Your task to perform on an android device: check data usage Image 0: 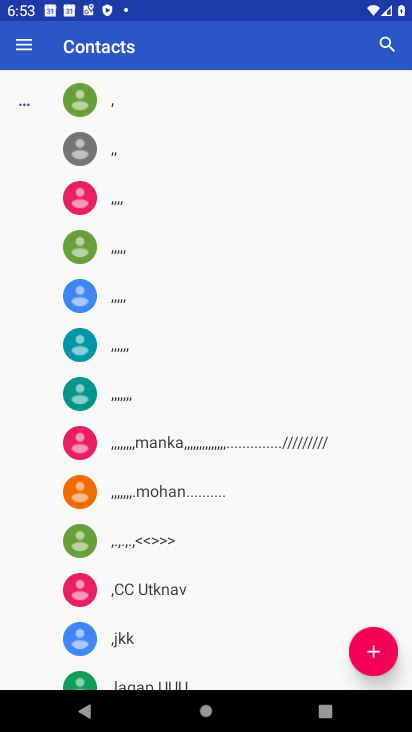
Step 0: press home button
Your task to perform on an android device: check data usage Image 1: 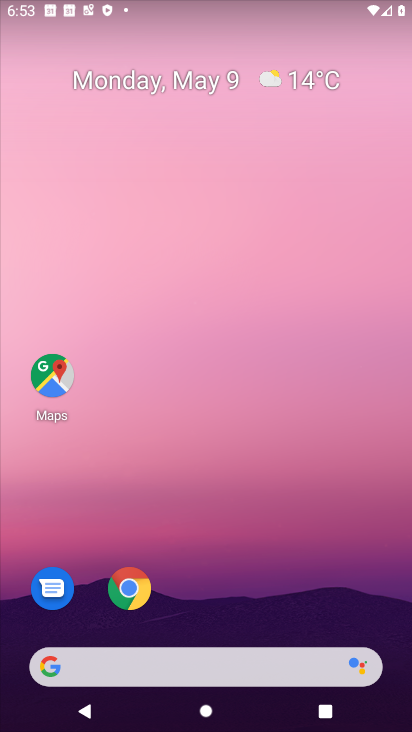
Step 1: drag from (333, 595) to (296, 61)
Your task to perform on an android device: check data usage Image 2: 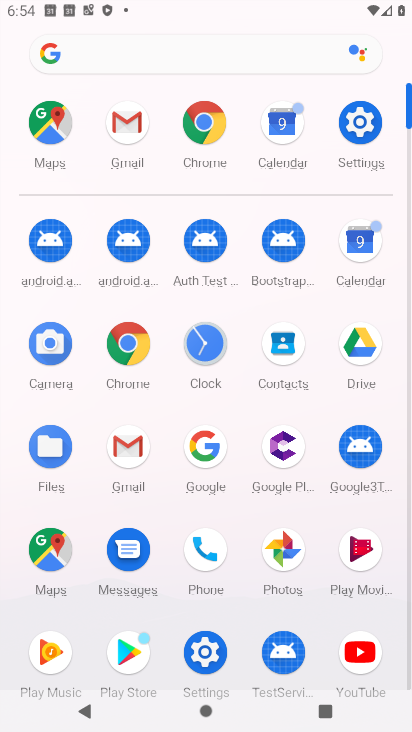
Step 2: click (205, 646)
Your task to perform on an android device: check data usage Image 3: 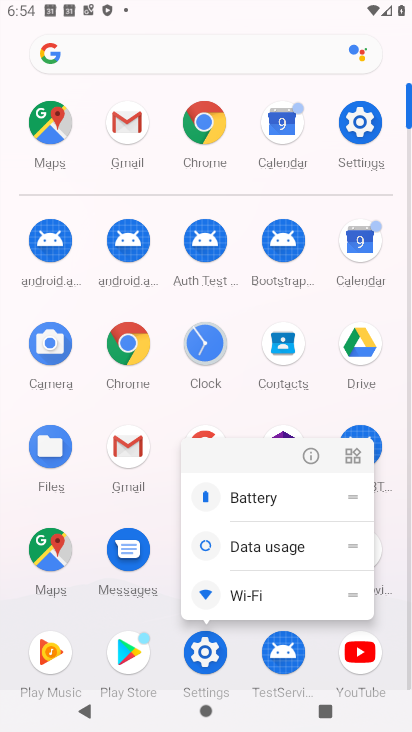
Step 3: click (205, 646)
Your task to perform on an android device: check data usage Image 4: 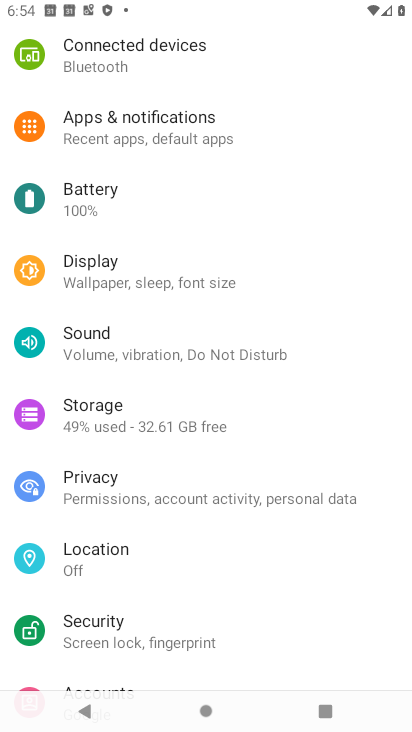
Step 4: drag from (169, 93) to (230, 656)
Your task to perform on an android device: check data usage Image 5: 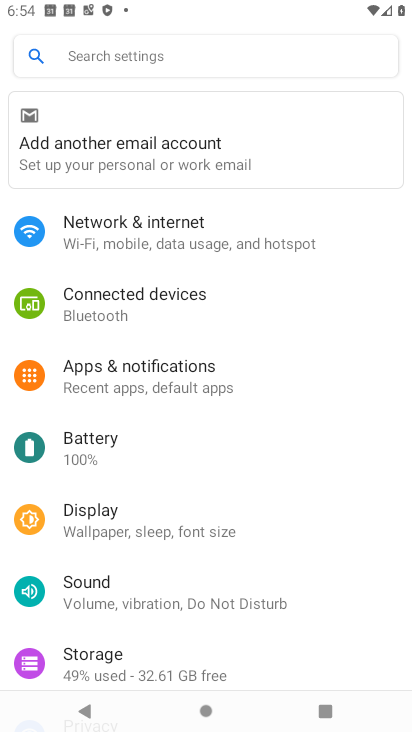
Step 5: click (212, 245)
Your task to perform on an android device: check data usage Image 6: 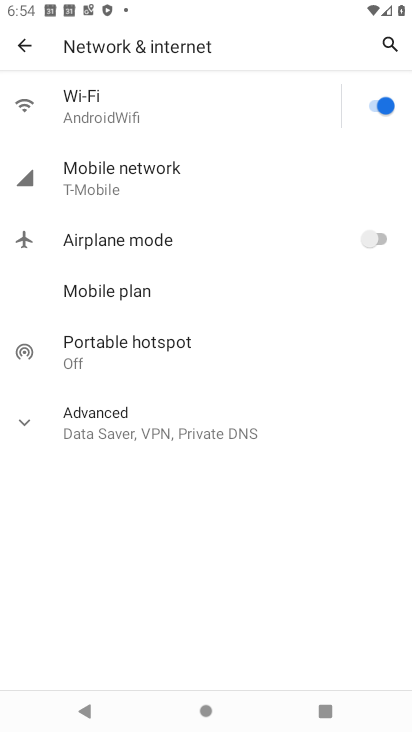
Step 6: click (153, 180)
Your task to perform on an android device: check data usage Image 7: 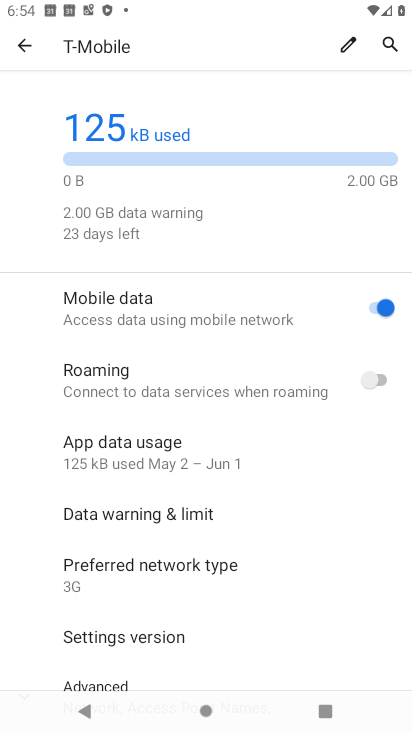
Step 7: click (172, 455)
Your task to perform on an android device: check data usage Image 8: 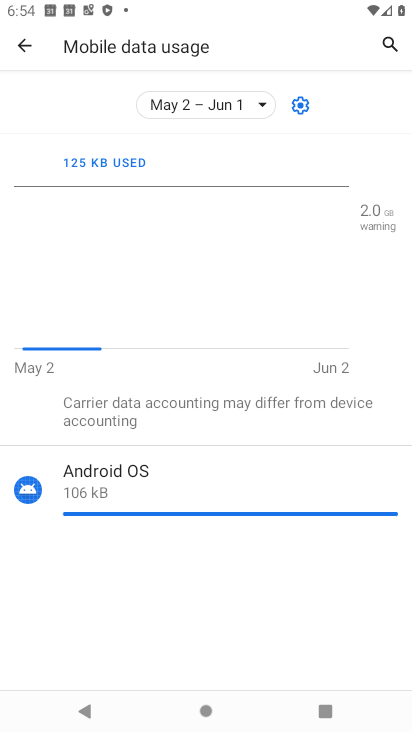
Step 8: task complete